Your task to perform on an android device: Go to Wikipedia Image 0: 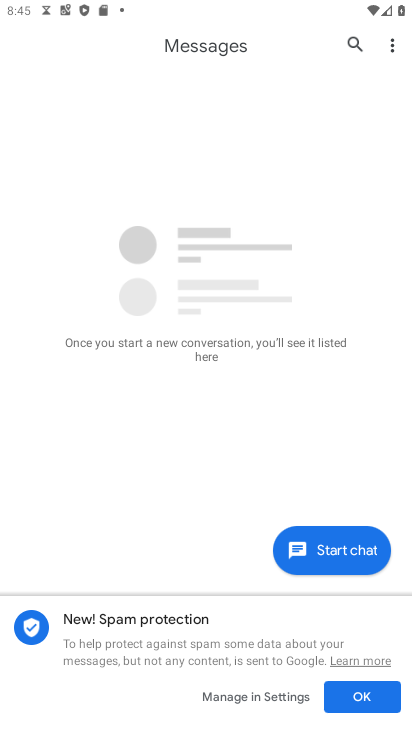
Step 0: press home button
Your task to perform on an android device: Go to Wikipedia Image 1: 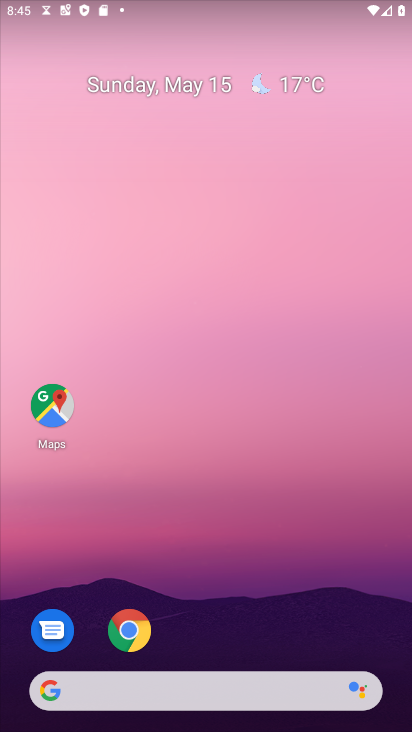
Step 1: drag from (303, 548) to (369, 29)
Your task to perform on an android device: Go to Wikipedia Image 2: 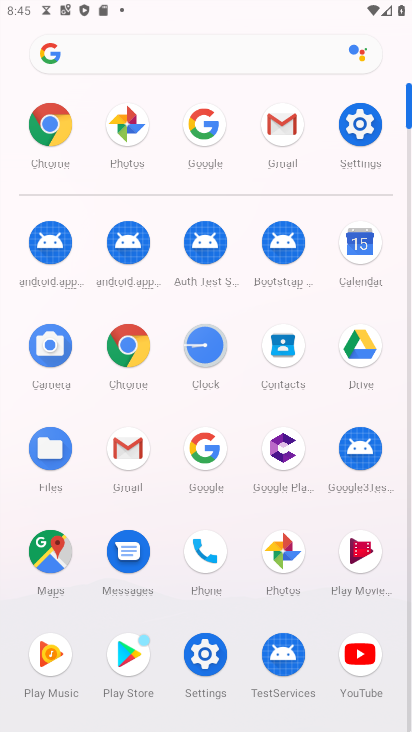
Step 2: click (47, 113)
Your task to perform on an android device: Go to Wikipedia Image 3: 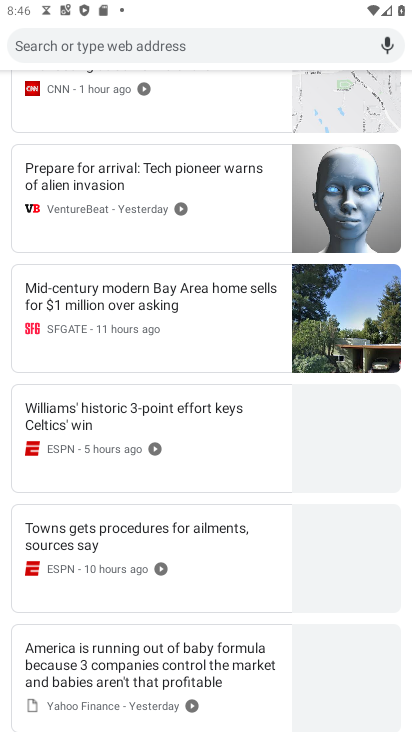
Step 3: drag from (36, 128) to (49, 579)
Your task to perform on an android device: Go to Wikipedia Image 4: 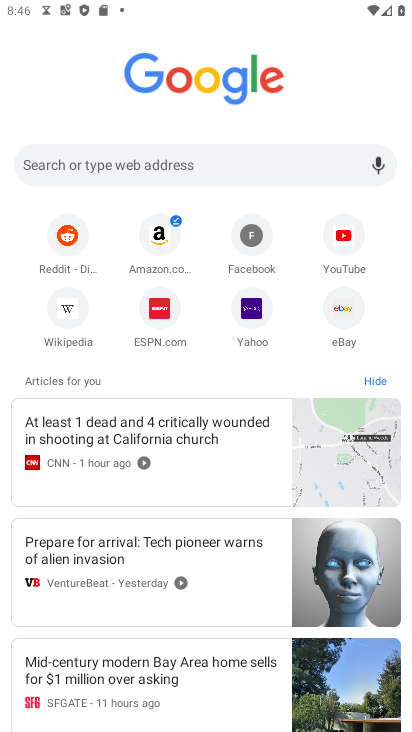
Step 4: click (70, 316)
Your task to perform on an android device: Go to Wikipedia Image 5: 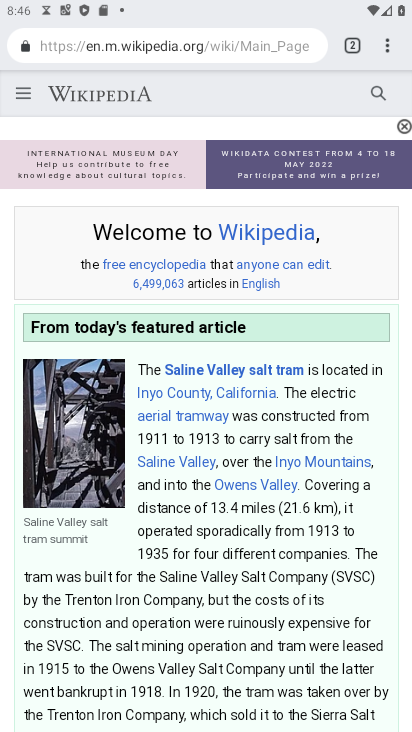
Step 5: task complete